Your task to perform on an android device: turn off location Image 0: 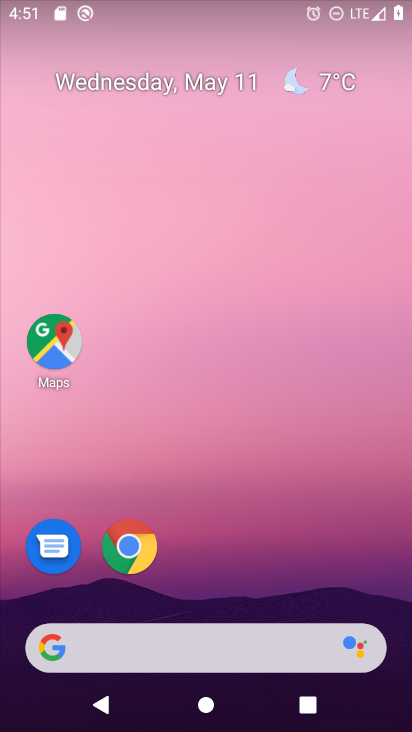
Step 0: drag from (314, 592) to (310, 0)
Your task to perform on an android device: turn off location Image 1: 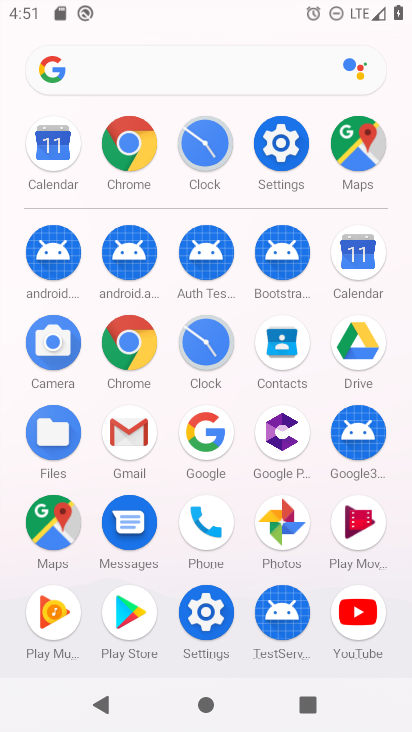
Step 1: click (287, 159)
Your task to perform on an android device: turn off location Image 2: 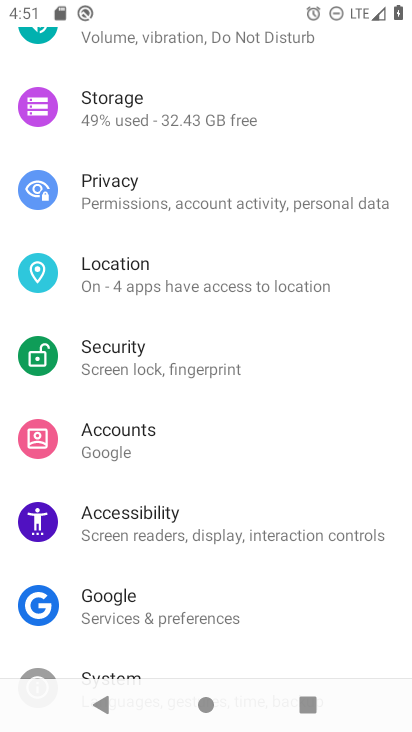
Step 2: click (209, 276)
Your task to perform on an android device: turn off location Image 3: 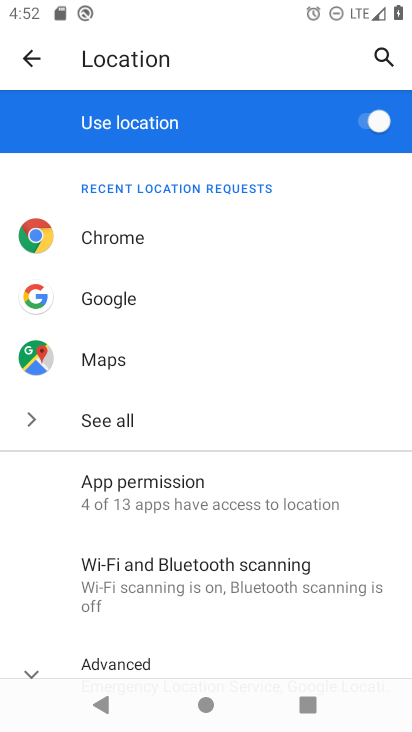
Step 3: drag from (228, 573) to (197, 111)
Your task to perform on an android device: turn off location Image 4: 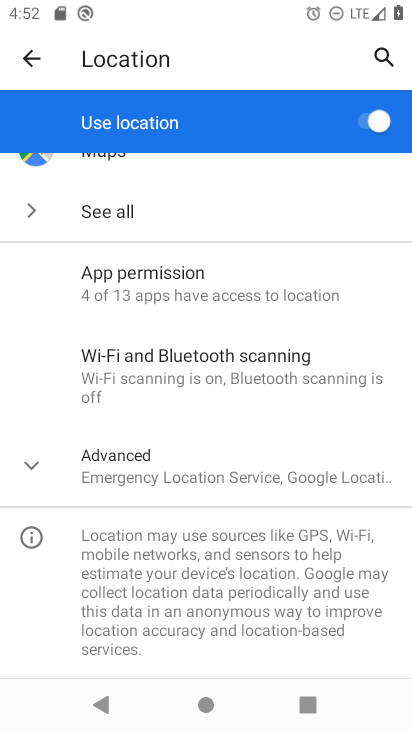
Step 4: click (371, 117)
Your task to perform on an android device: turn off location Image 5: 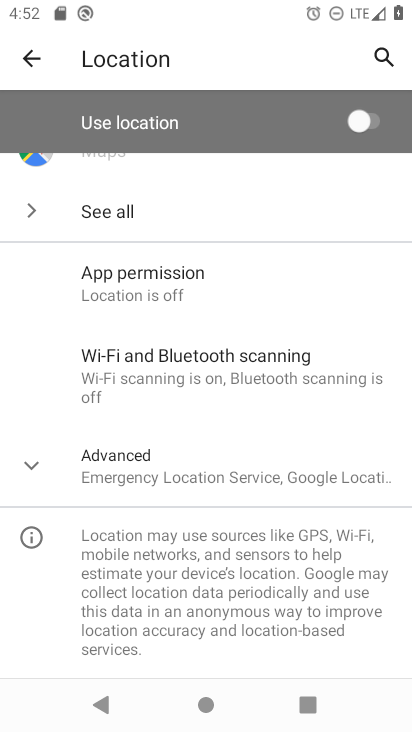
Step 5: task complete